Your task to perform on an android device: uninstall "Etsy: Buy & Sell Unique Items" Image 0: 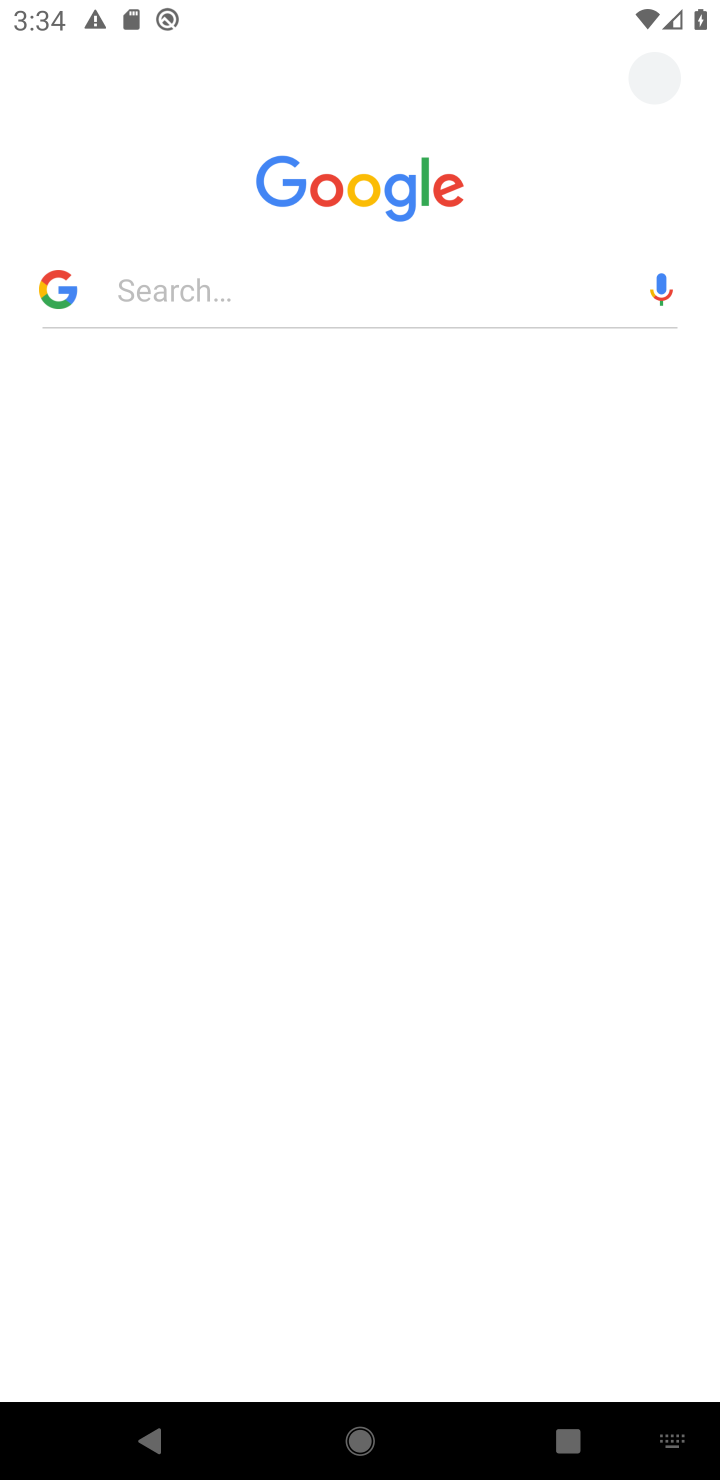
Step 0: press back button
Your task to perform on an android device: uninstall "Etsy: Buy & Sell Unique Items" Image 1: 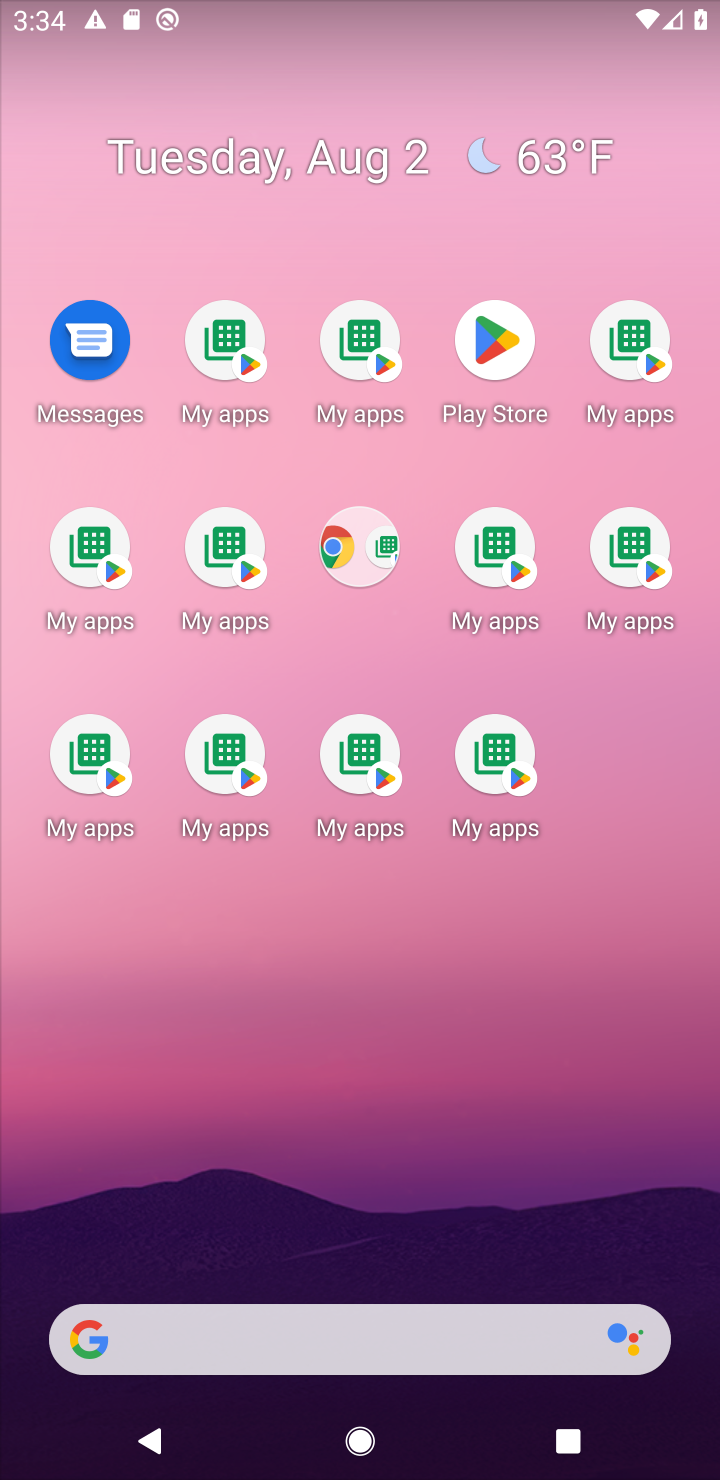
Step 1: drag from (402, 1185) to (387, 529)
Your task to perform on an android device: uninstall "Etsy: Buy & Sell Unique Items" Image 2: 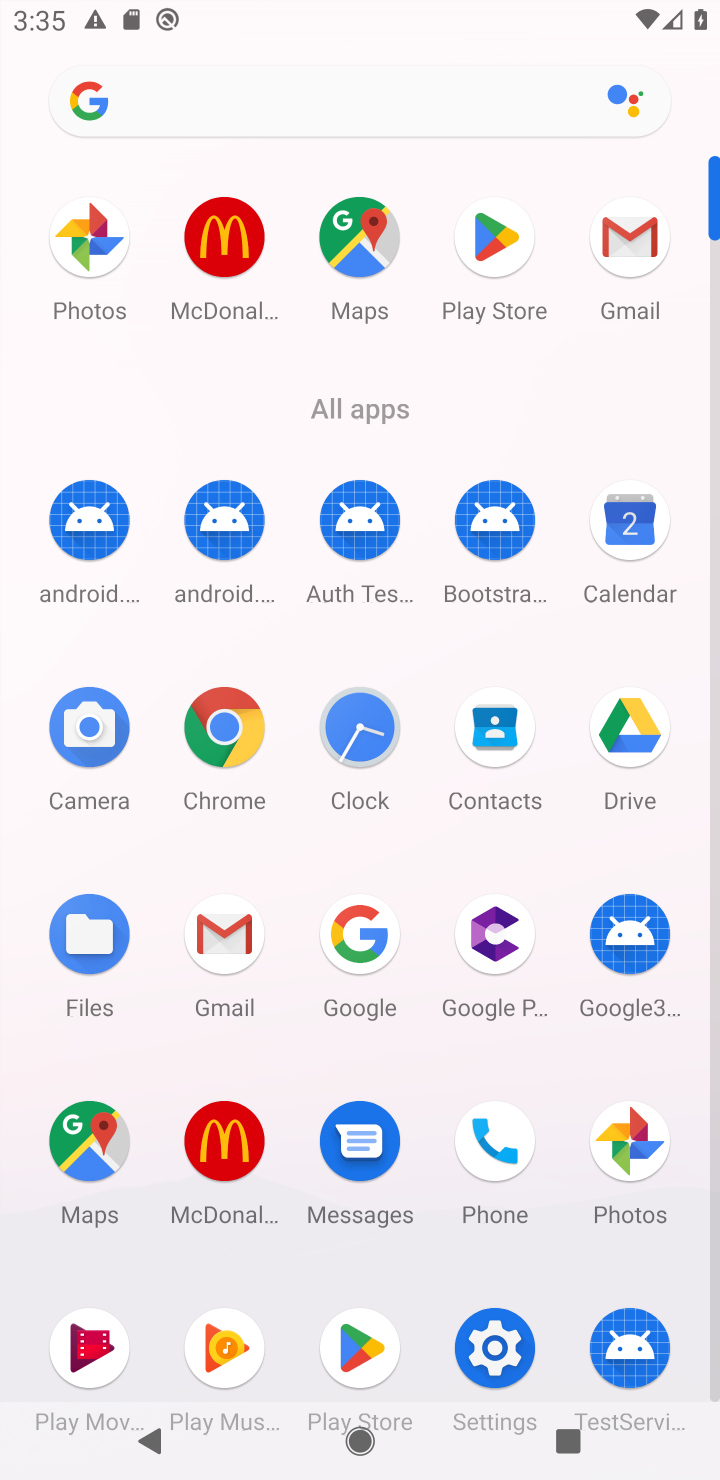
Step 2: click (486, 231)
Your task to perform on an android device: uninstall "Etsy: Buy & Sell Unique Items" Image 3: 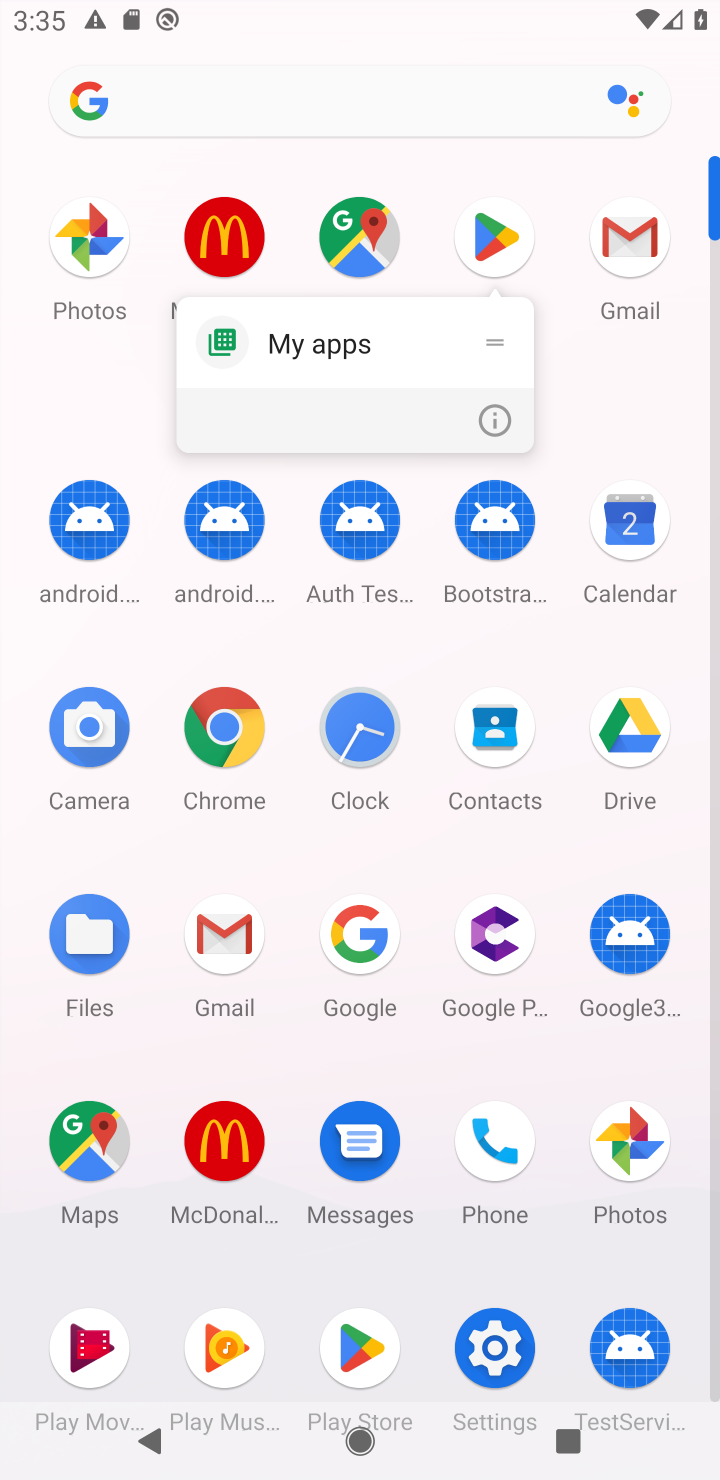
Step 3: click (370, 357)
Your task to perform on an android device: uninstall "Etsy: Buy & Sell Unique Items" Image 4: 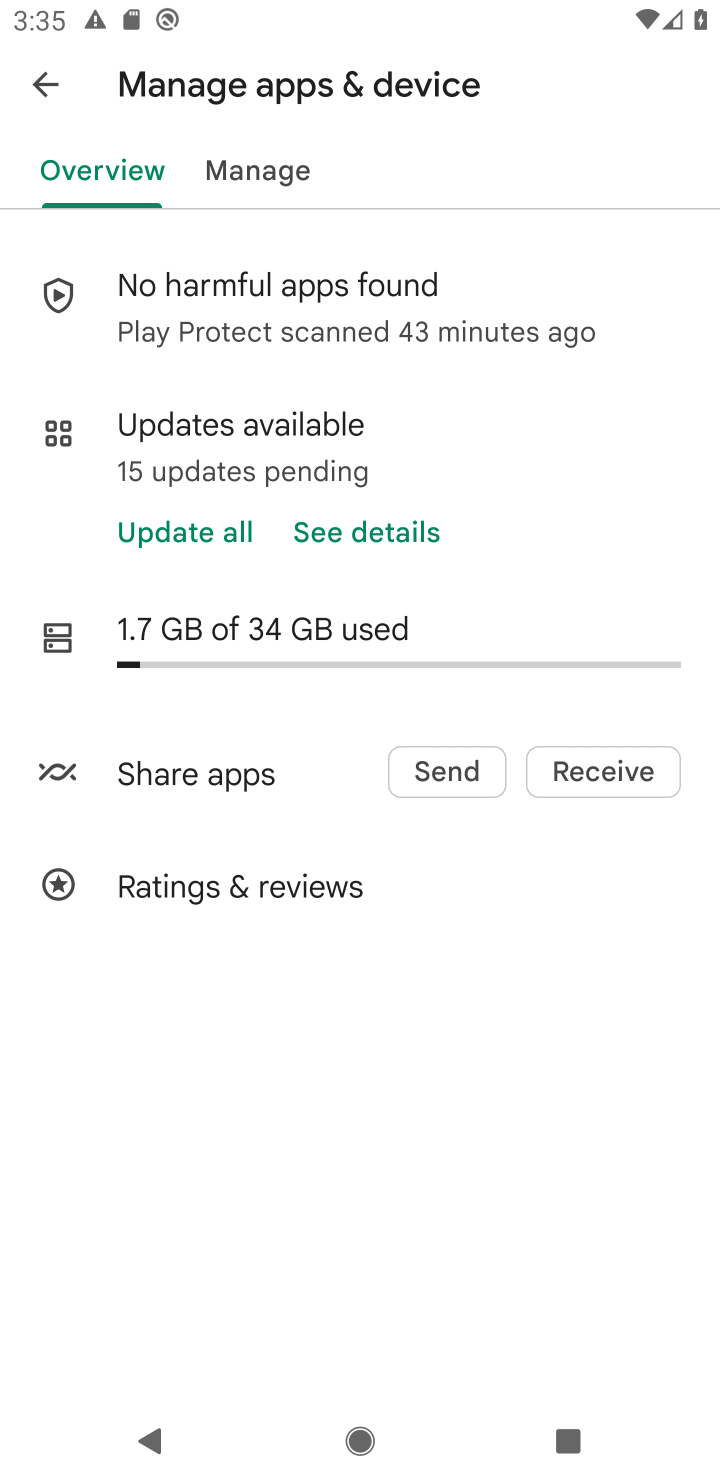
Step 4: click (32, 68)
Your task to perform on an android device: uninstall "Etsy: Buy & Sell Unique Items" Image 5: 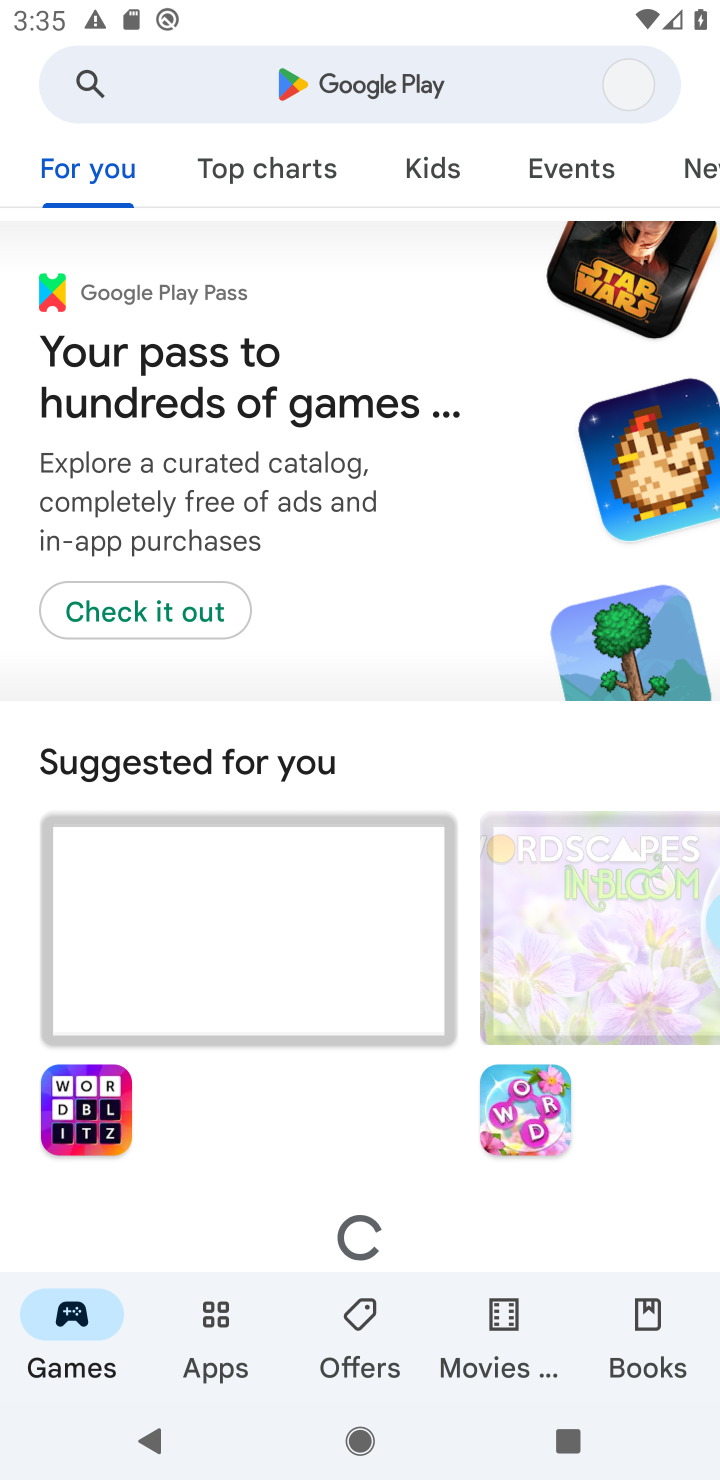
Step 5: click (383, 104)
Your task to perform on an android device: uninstall "Etsy: Buy & Sell Unique Items" Image 6: 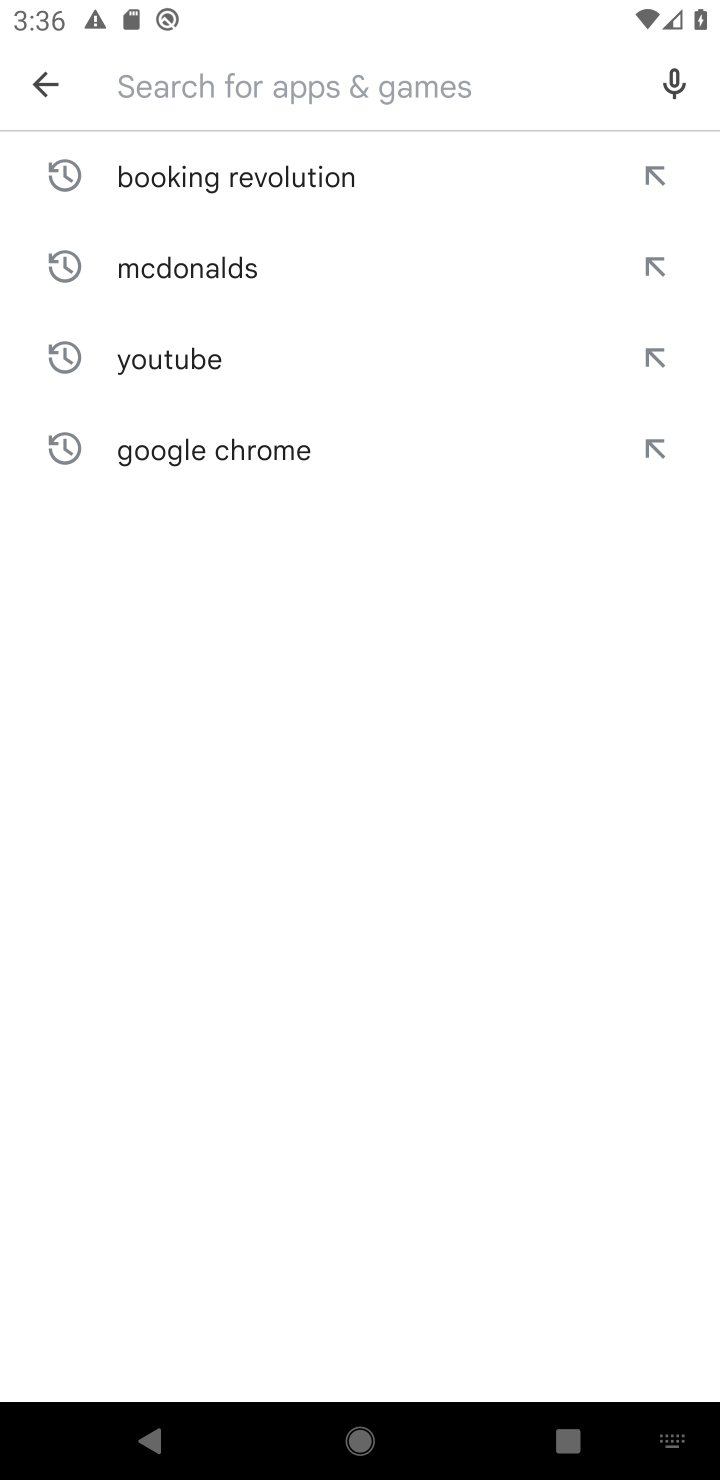
Step 6: type "etsy"
Your task to perform on an android device: uninstall "Etsy: Buy & Sell Unique Items" Image 7: 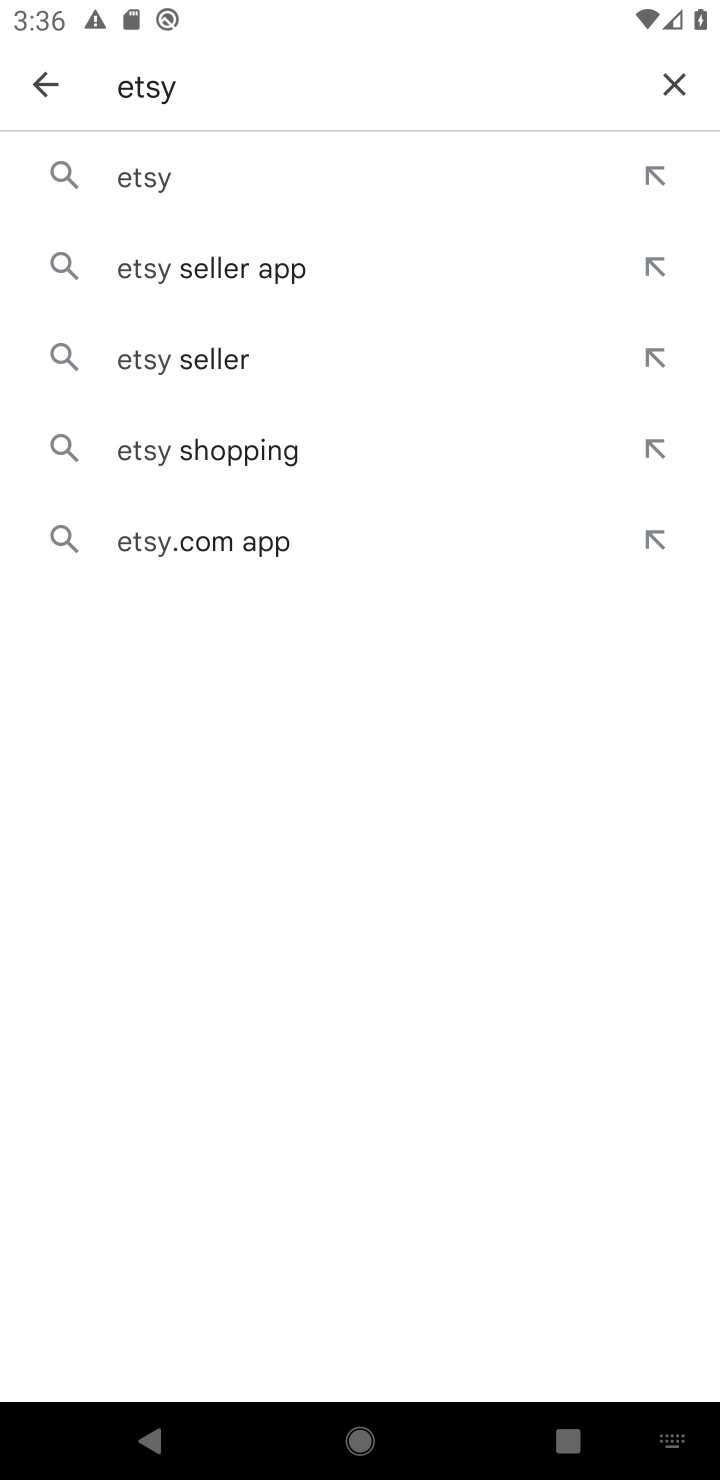
Step 7: click (140, 171)
Your task to perform on an android device: uninstall "Etsy: Buy & Sell Unique Items" Image 8: 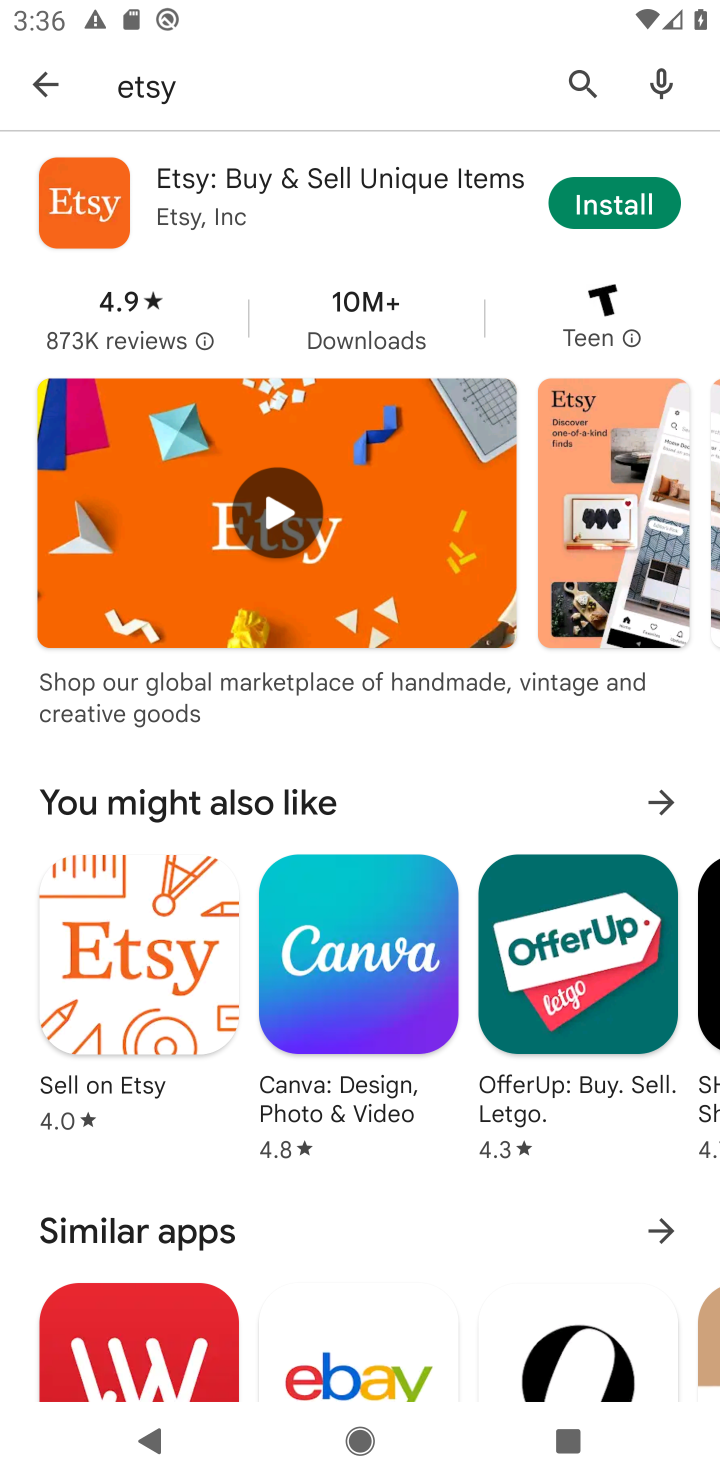
Step 8: click (626, 189)
Your task to perform on an android device: uninstall "Etsy: Buy & Sell Unique Items" Image 9: 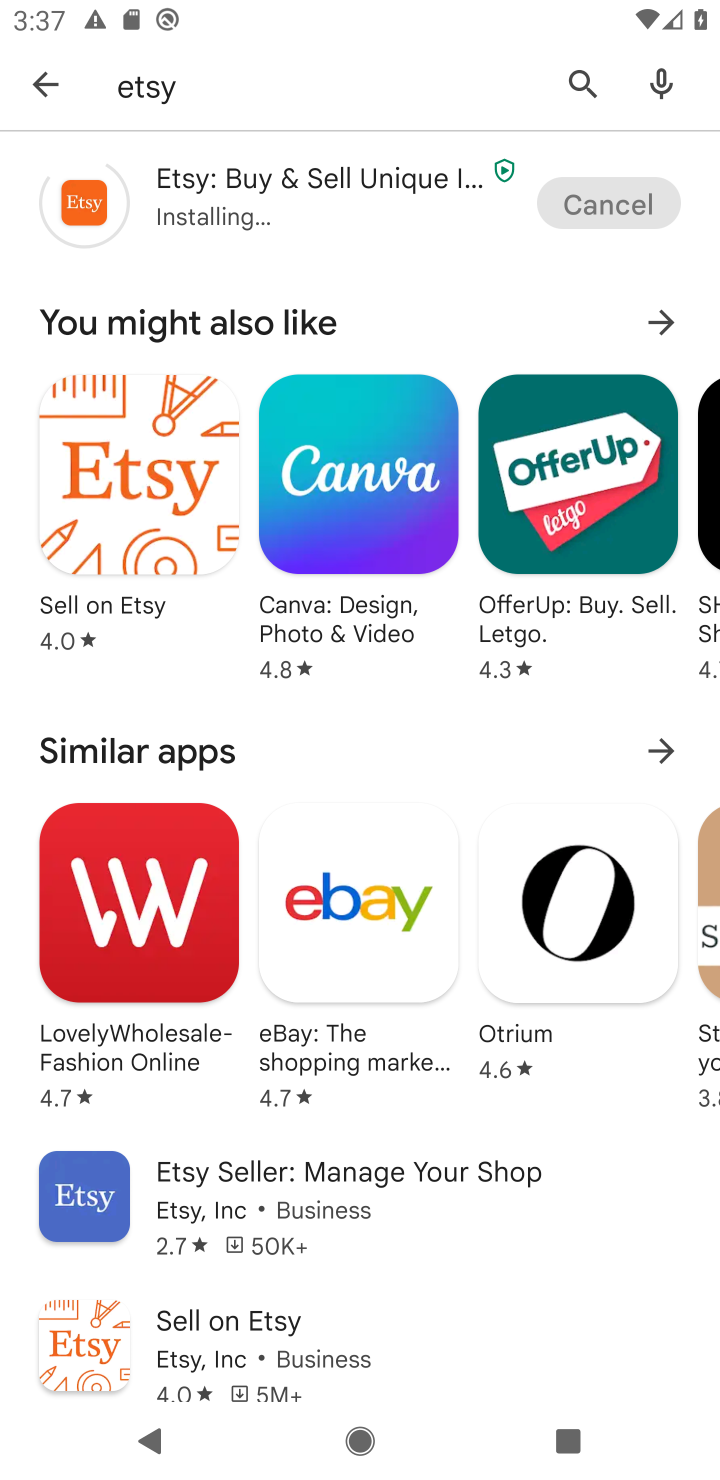
Step 9: click (566, 271)
Your task to perform on an android device: uninstall "Etsy: Buy & Sell Unique Items" Image 10: 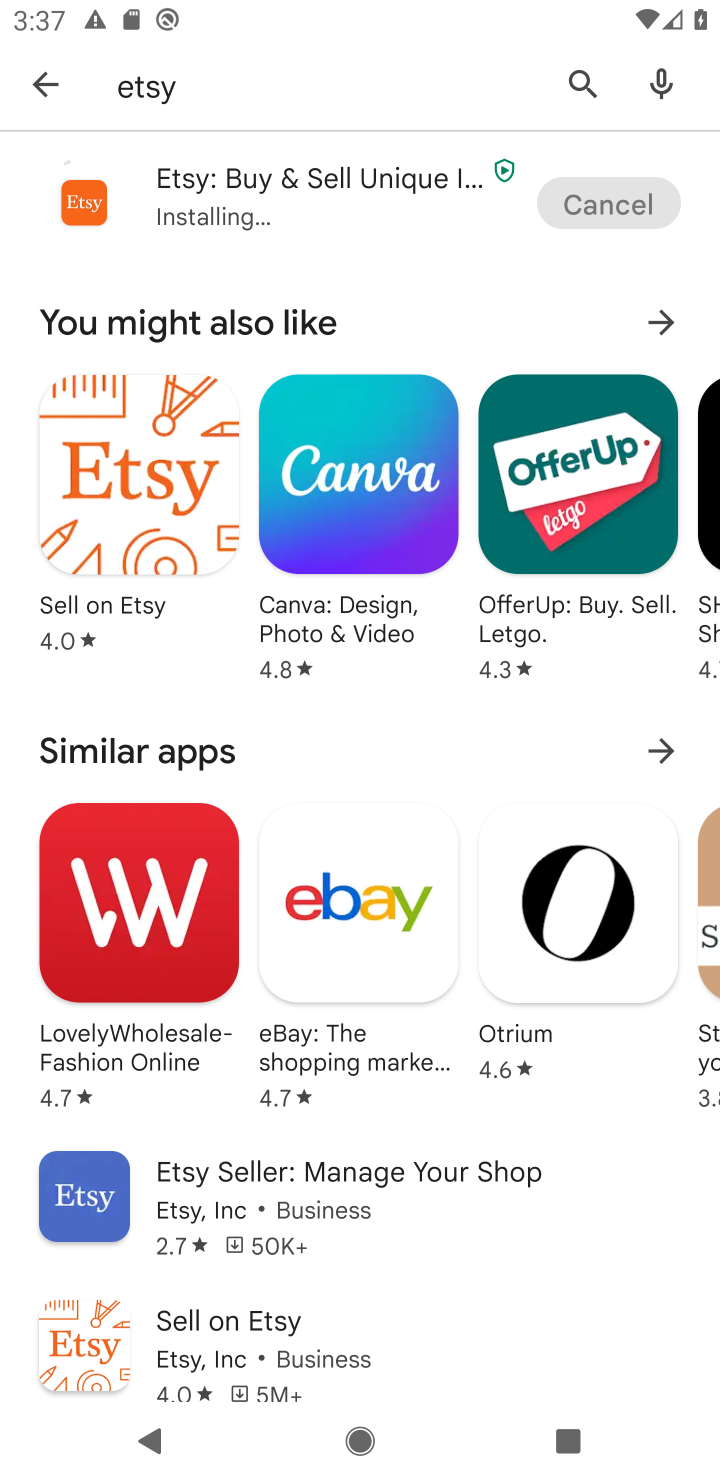
Step 10: click (604, 184)
Your task to perform on an android device: uninstall "Etsy: Buy & Sell Unique Items" Image 11: 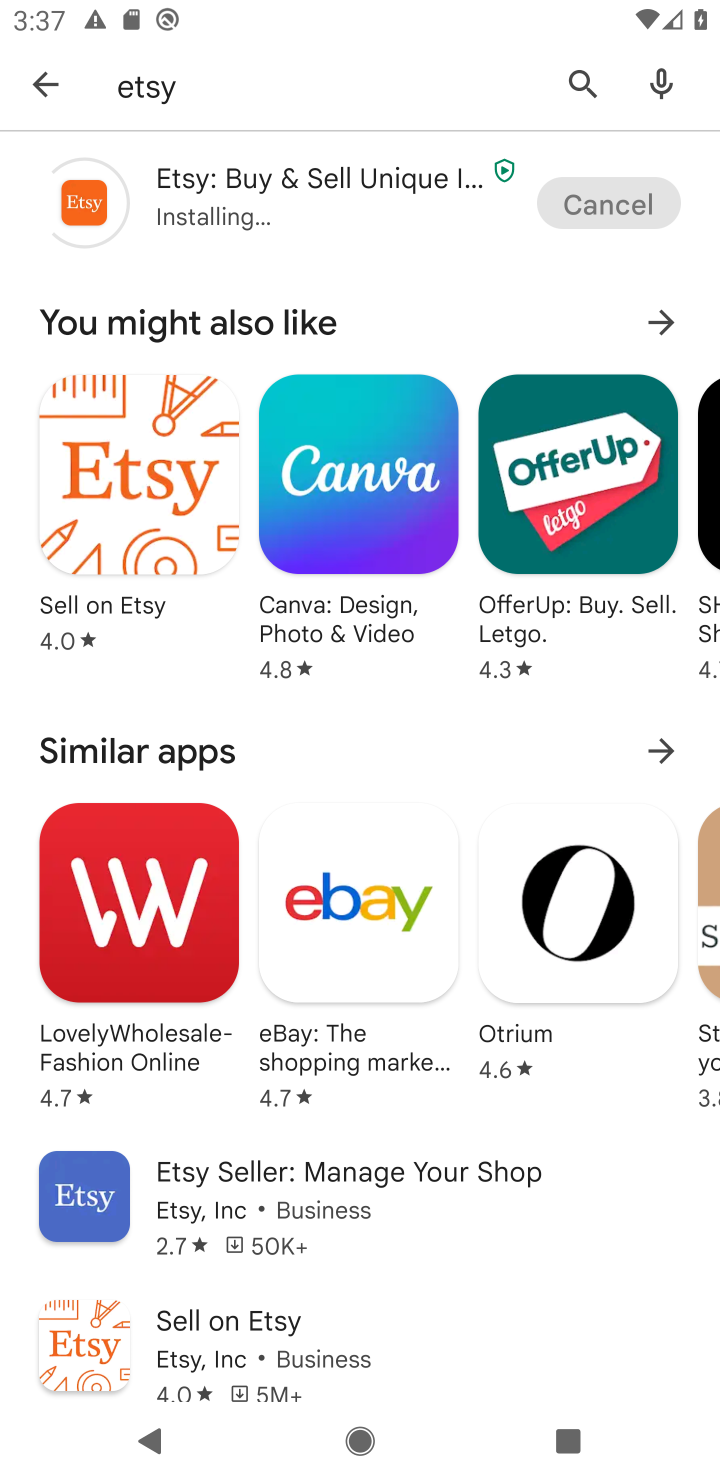
Step 11: click (609, 189)
Your task to perform on an android device: uninstall "Etsy: Buy & Sell Unique Items" Image 12: 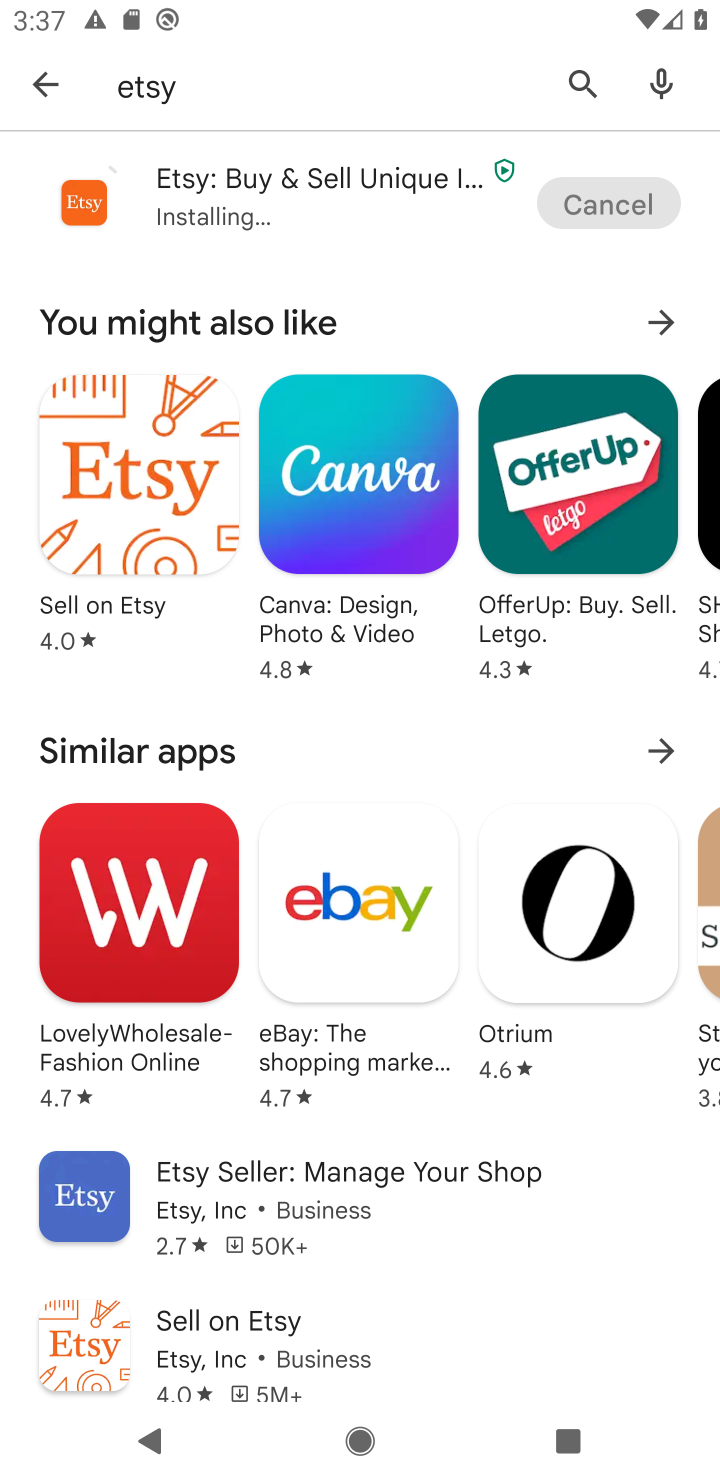
Step 12: click (619, 178)
Your task to perform on an android device: uninstall "Etsy: Buy & Sell Unique Items" Image 13: 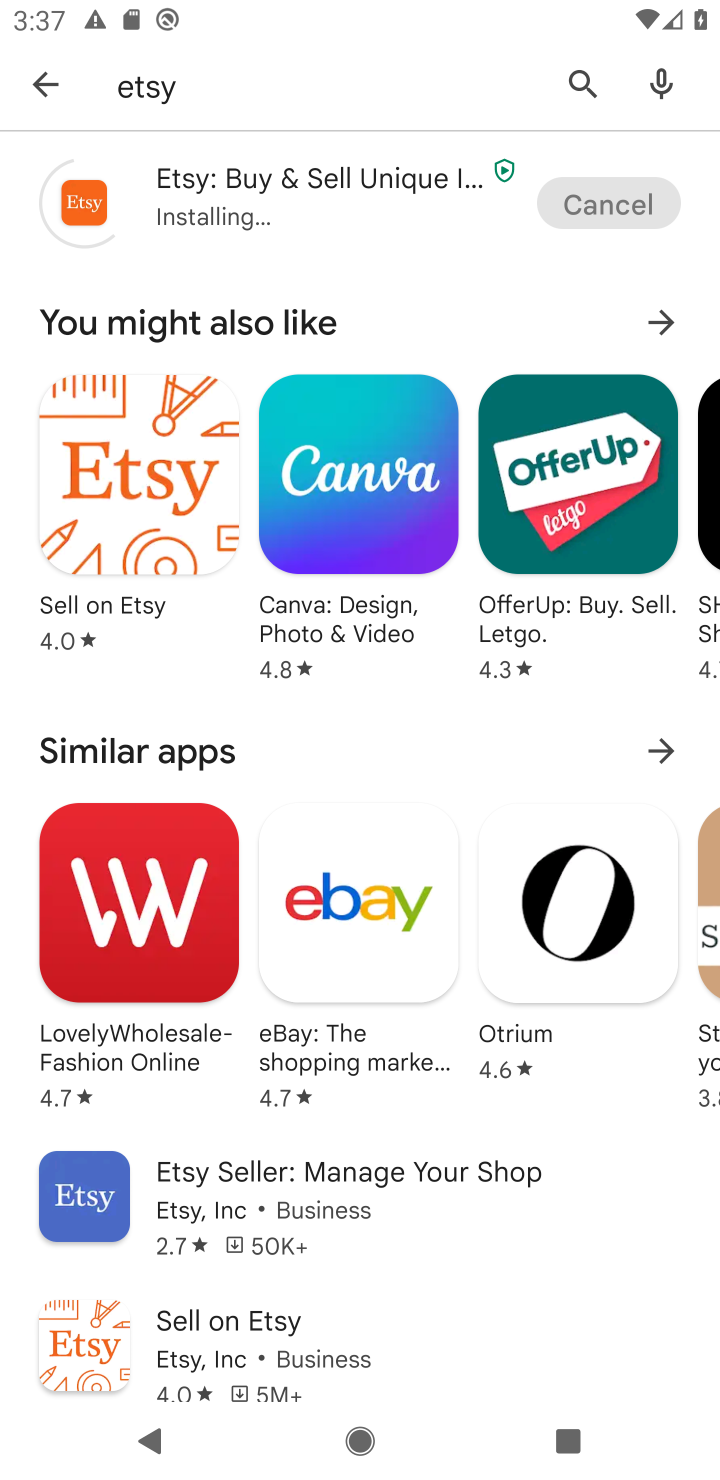
Step 13: task complete